Your task to perform on an android device: turn on the 24-hour format for clock Image 0: 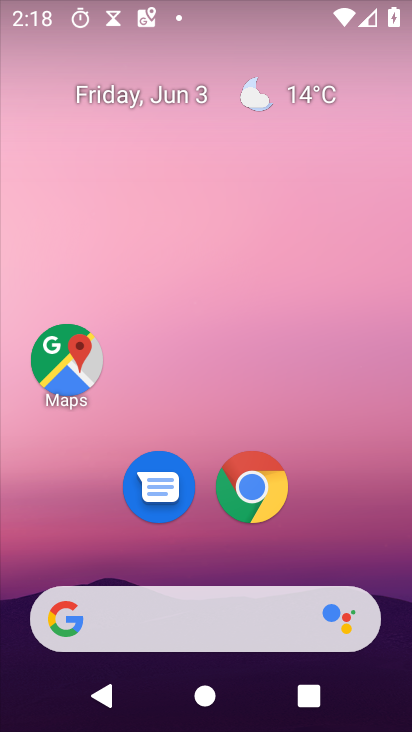
Step 0: drag from (315, 432) to (180, 31)
Your task to perform on an android device: turn on the 24-hour format for clock Image 1: 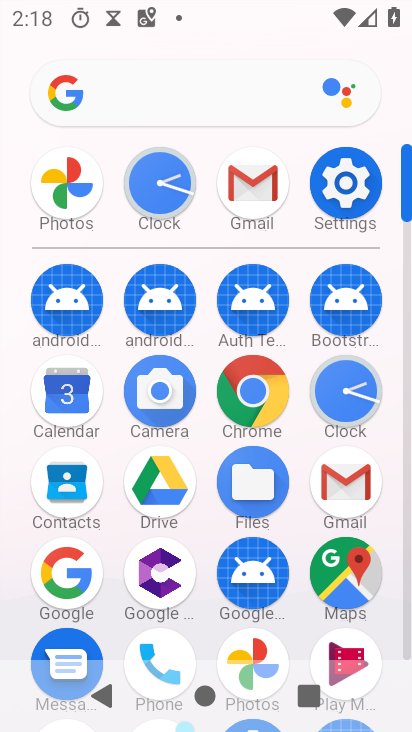
Step 1: click (350, 385)
Your task to perform on an android device: turn on the 24-hour format for clock Image 2: 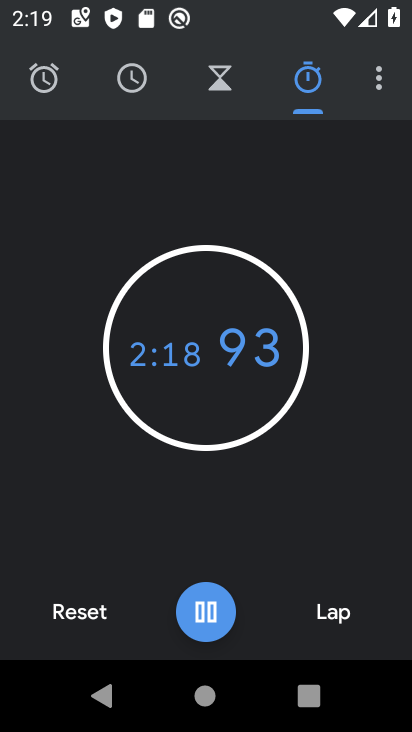
Step 2: click (379, 88)
Your task to perform on an android device: turn on the 24-hour format for clock Image 3: 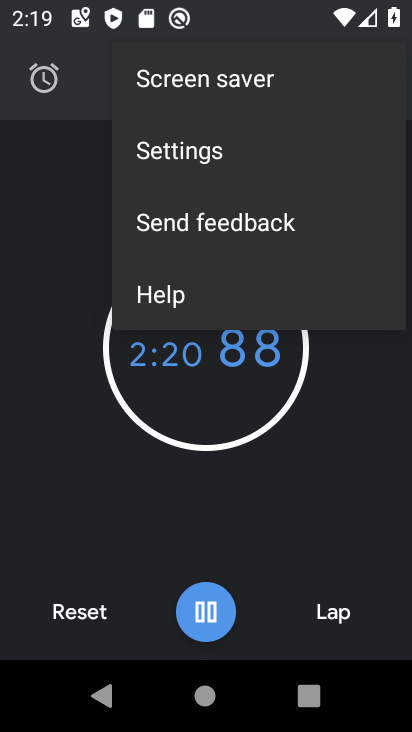
Step 3: click (208, 145)
Your task to perform on an android device: turn on the 24-hour format for clock Image 4: 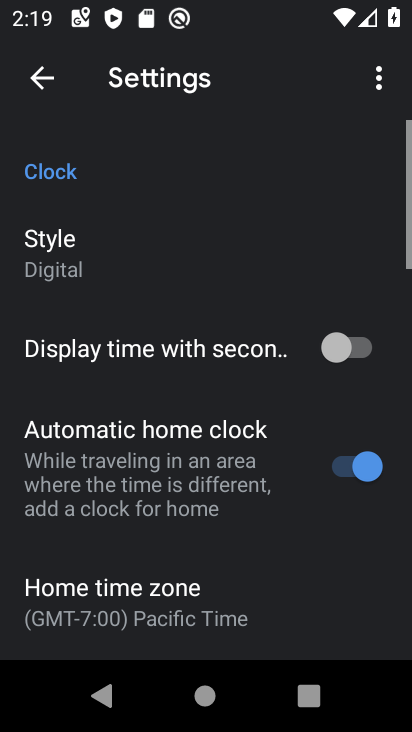
Step 4: drag from (260, 532) to (231, 129)
Your task to perform on an android device: turn on the 24-hour format for clock Image 5: 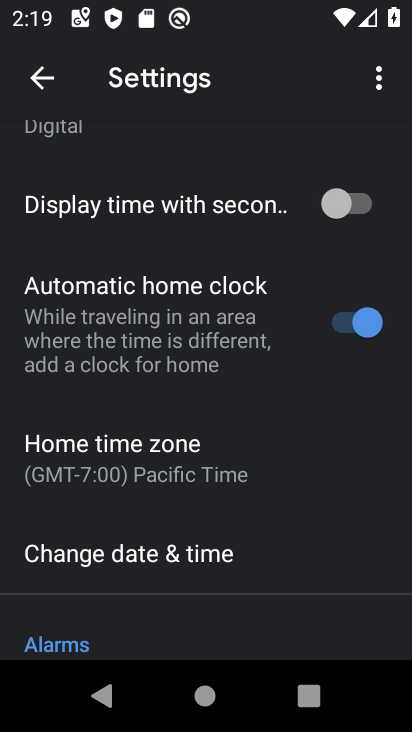
Step 5: click (188, 548)
Your task to perform on an android device: turn on the 24-hour format for clock Image 6: 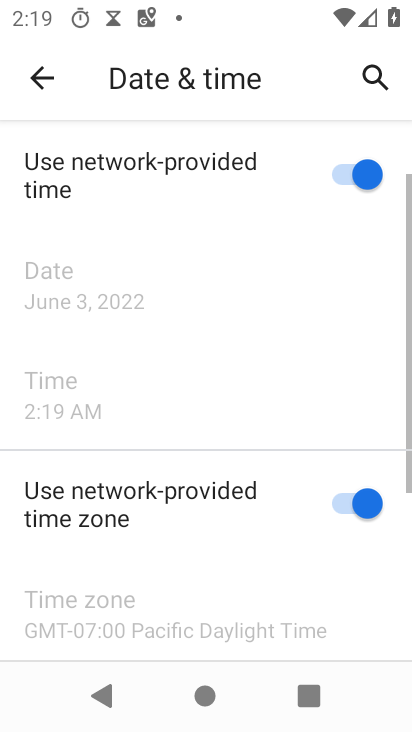
Step 6: drag from (263, 489) to (251, 78)
Your task to perform on an android device: turn on the 24-hour format for clock Image 7: 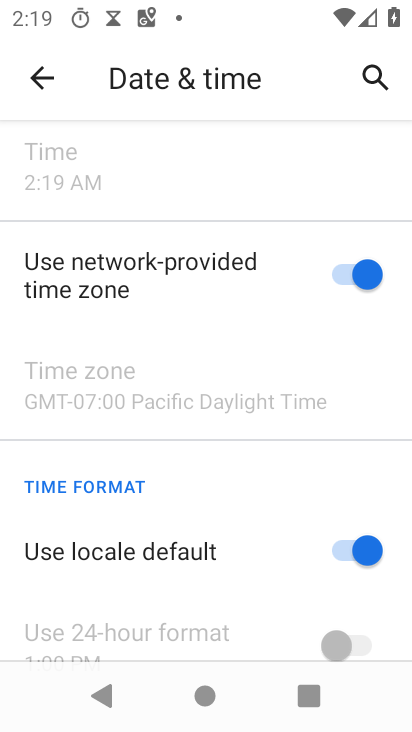
Step 7: click (356, 556)
Your task to perform on an android device: turn on the 24-hour format for clock Image 8: 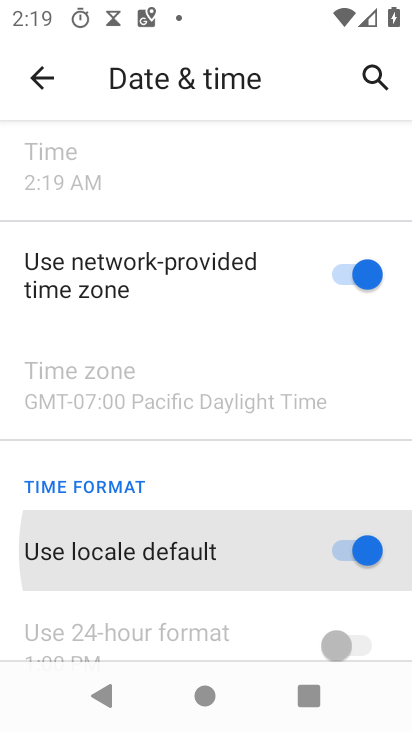
Step 8: click (343, 638)
Your task to perform on an android device: turn on the 24-hour format for clock Image 9: 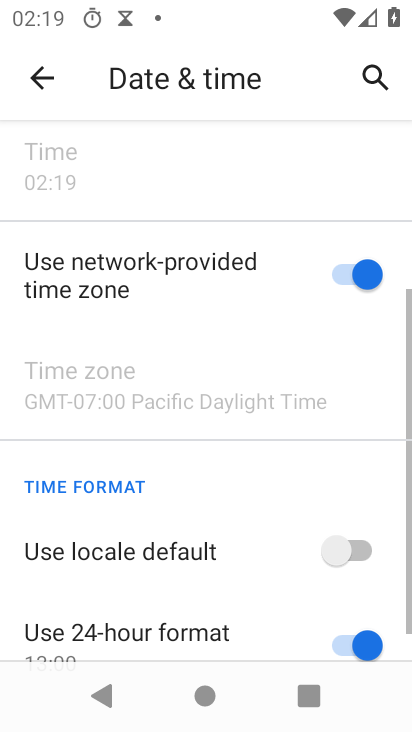
Step 9: task complete